Your task to perform on an android device: turn off improve location accuracy Image 0: 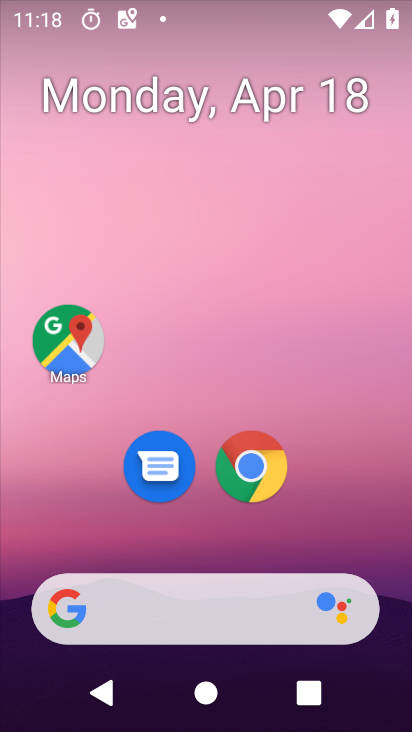
Step 0: drag from (327, 640) to (351, 175)
Your task to perform on an android device: turn off improve location accuracy Image 1: 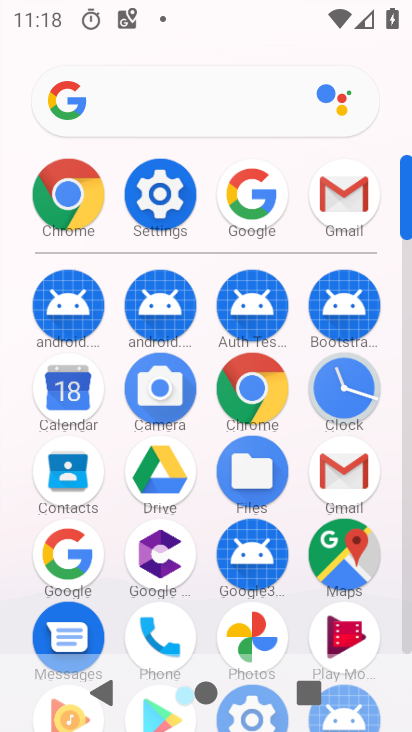
Step 1: click (176, 206)
Your task to perform on an android device: turn off improve location accuracy Image 2: 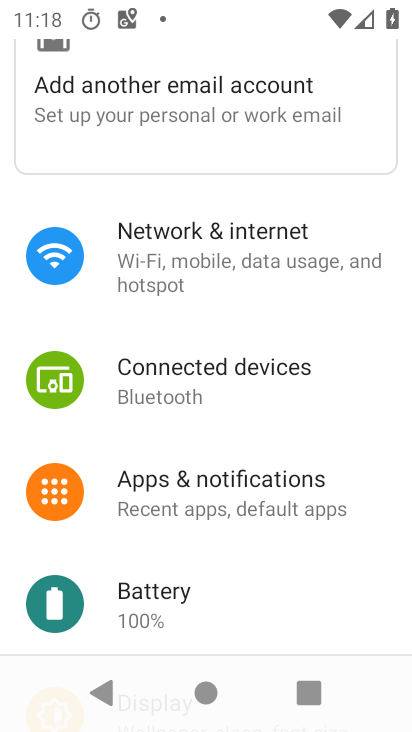
Step 2: drag from (187, 527) to (210, 146)
Your task to perform on an android device: turn off improve location accuracy Image 3: 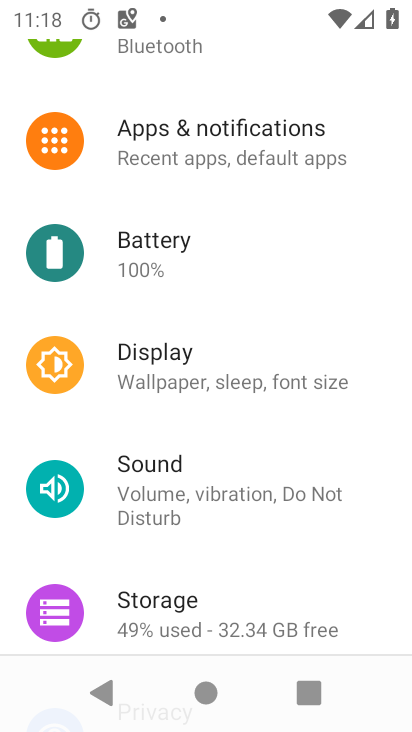
Step 3: drag from (241, 601) to (299, 235)
Your task to perform on an android device: turn off improve location accuracy Image 4: 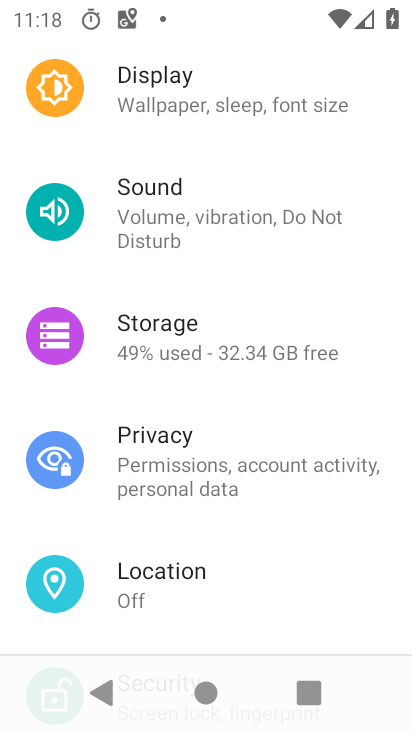
Step 4: click (226, 575)
Your task to perform on an android device: turn off improve location accuracy Image 5: 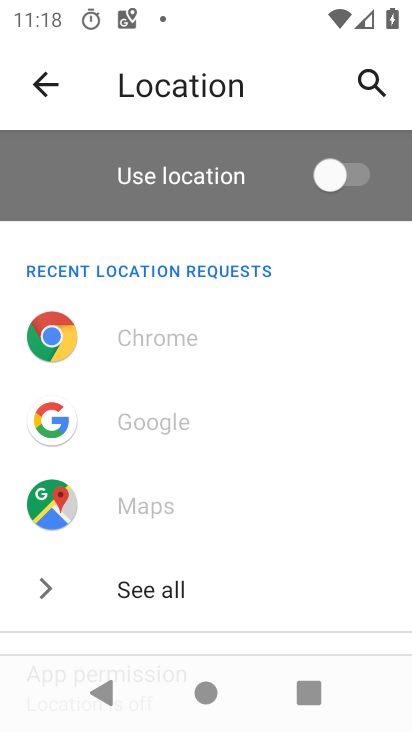
Step 5: drag from (175, 548) to (254, 230)
Your task to perform on an android device: turn off improve location accuracy Image 6: 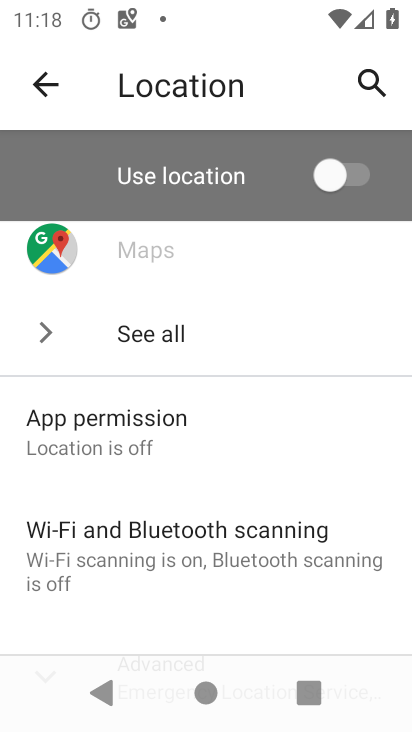
Step 6: drag from (267, 608) to (304, 291)
Your task to perform on an android device: turn off improve location accuracy Image 7: 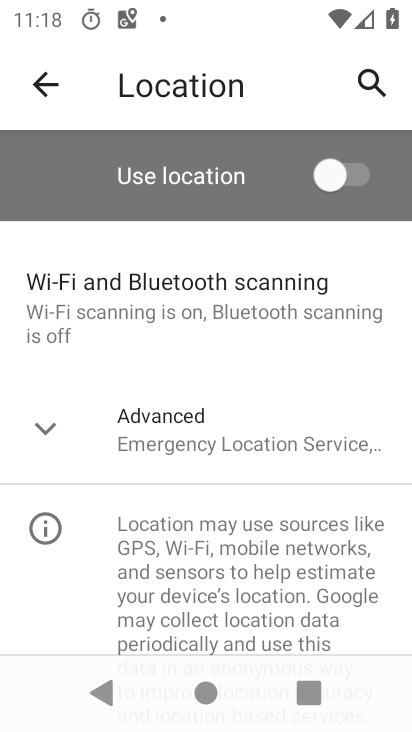
Step 7: click (238, 442)
Your task to perform on an android device: turn off improve location accuracy Image 8: 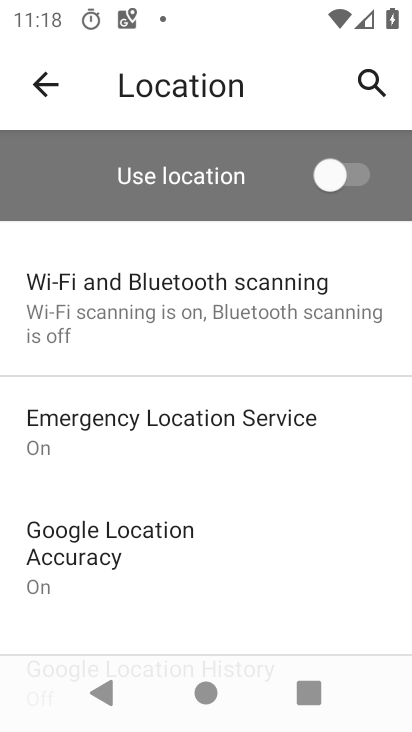
Step 8: click (187, 550)
Your task to perform on an android device: turn off improve location accuracy Image 9: 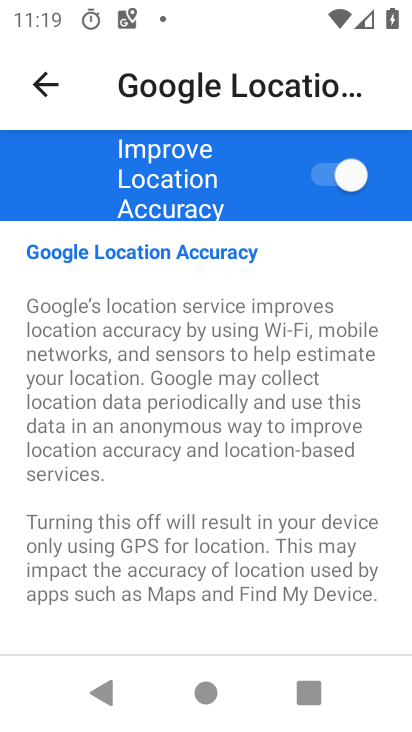
Step 9: click (327, 187)
Your task to perform on an android device: turn off improve location accuracy Image 10: 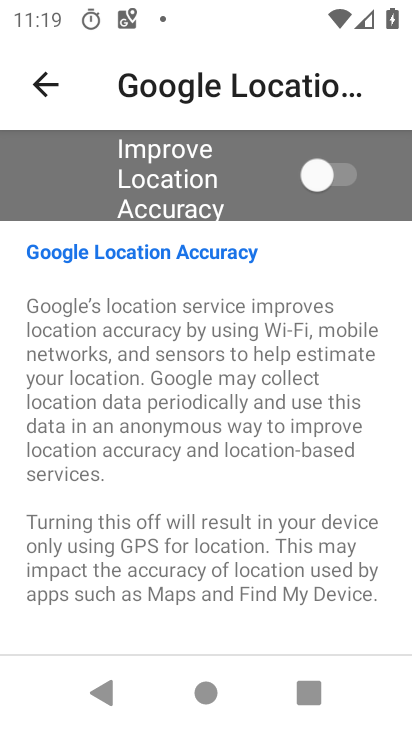
Step 10: task complete